Your task to perform on an android device: install app "Facebook Messenger" Image 0: 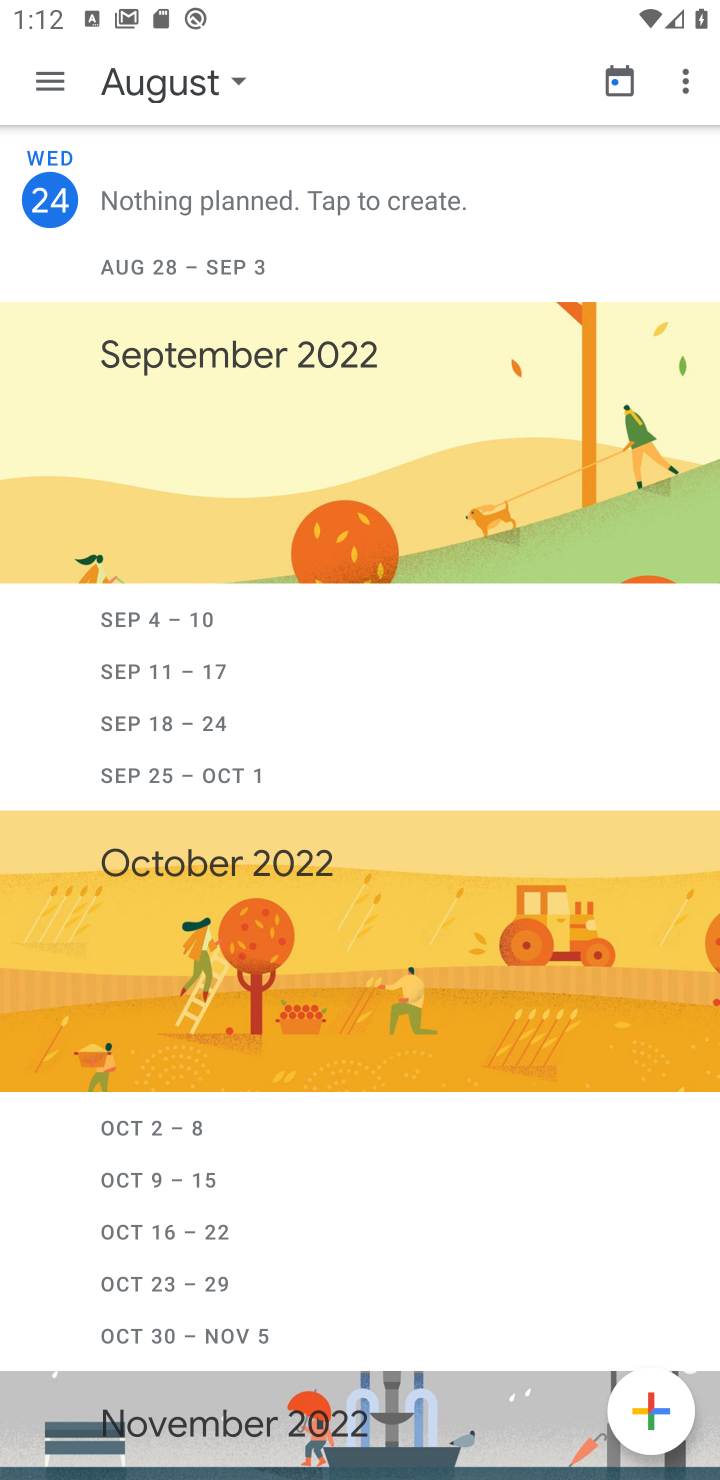
Step 0: press home button
Your task to perform on an android device: install app "Facebook Messenger" Image 1: 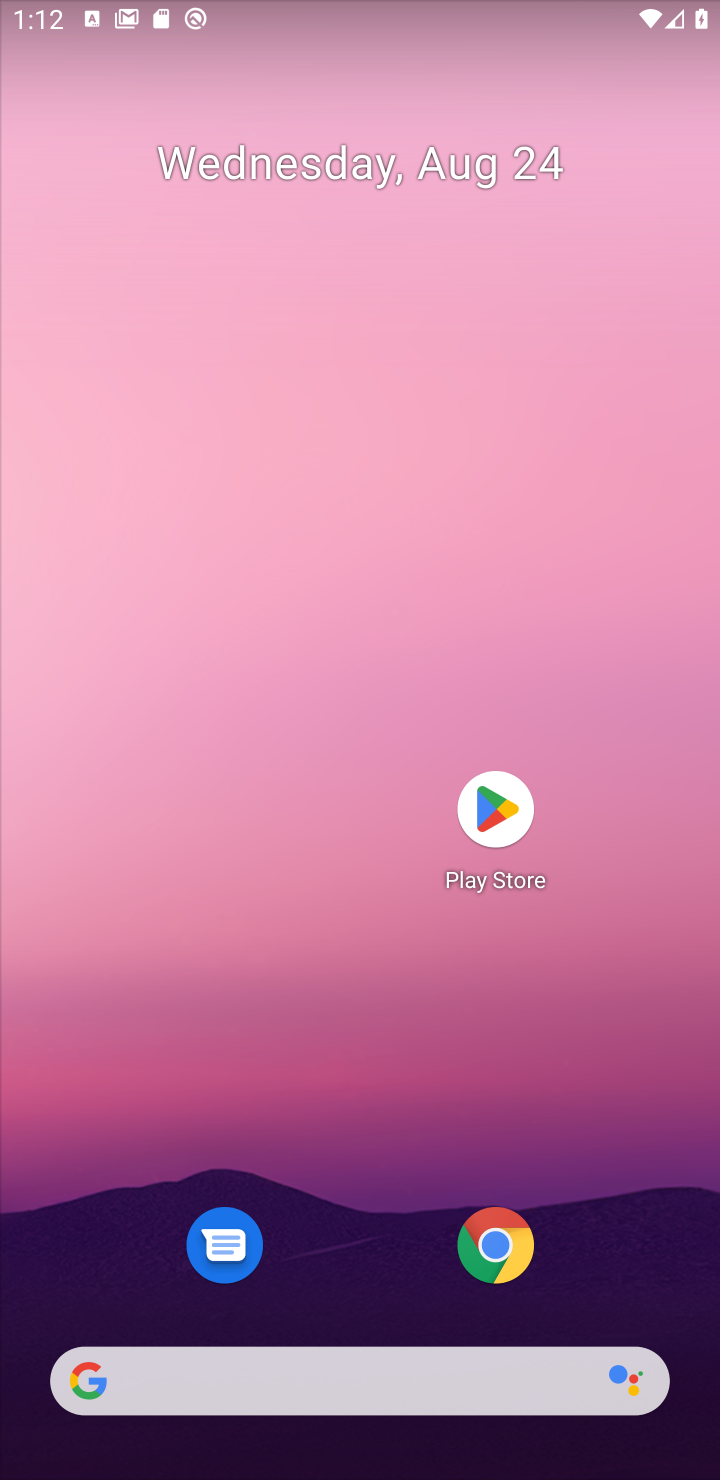
Step 1: click (499, 793)
Your task to perform on an android device: install app "Facebook Messenger" Image 2: 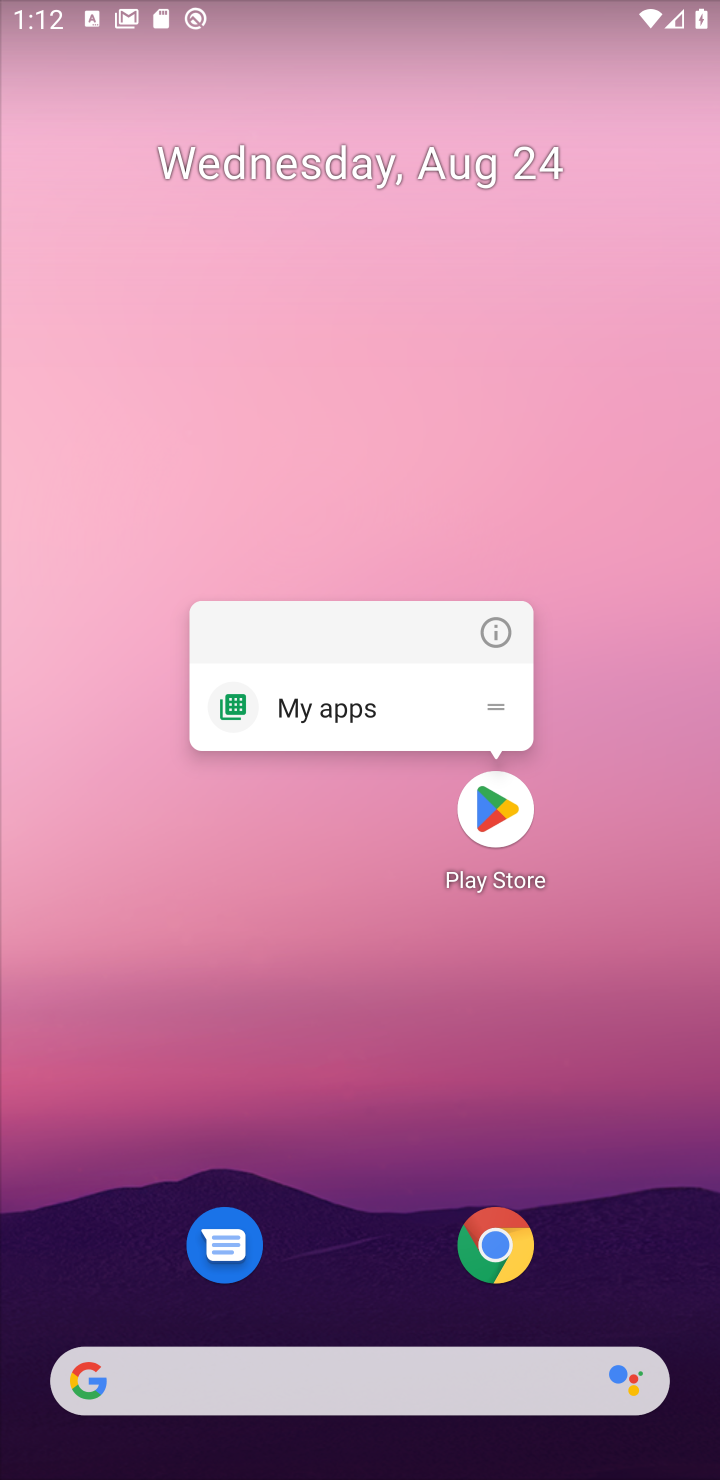
Step 2: click (499, 780)
Your task to perform on an android device: install app "Facebook Messenger" Image 3: 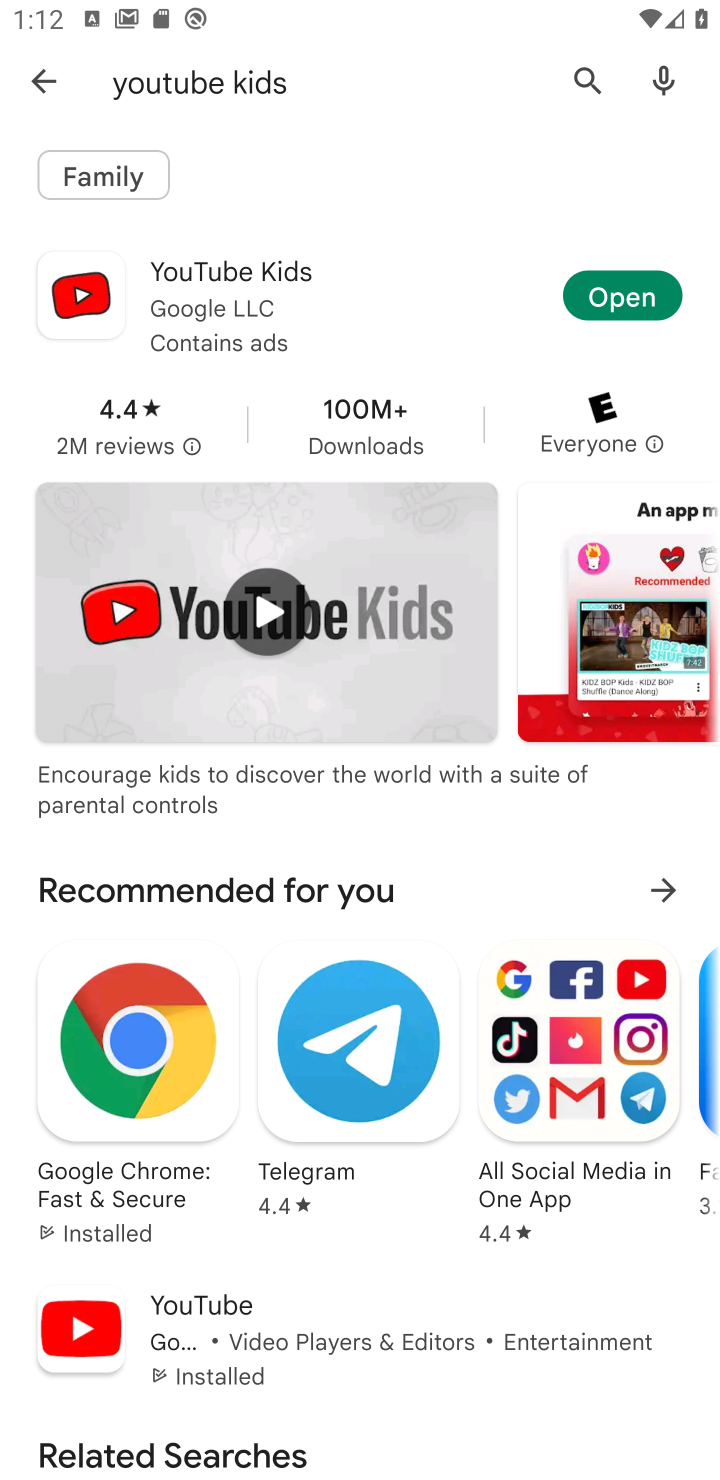
Step 3: click (576, 47)
Your task to perform on an android device: install app "Facebook Messenger" Image 4: 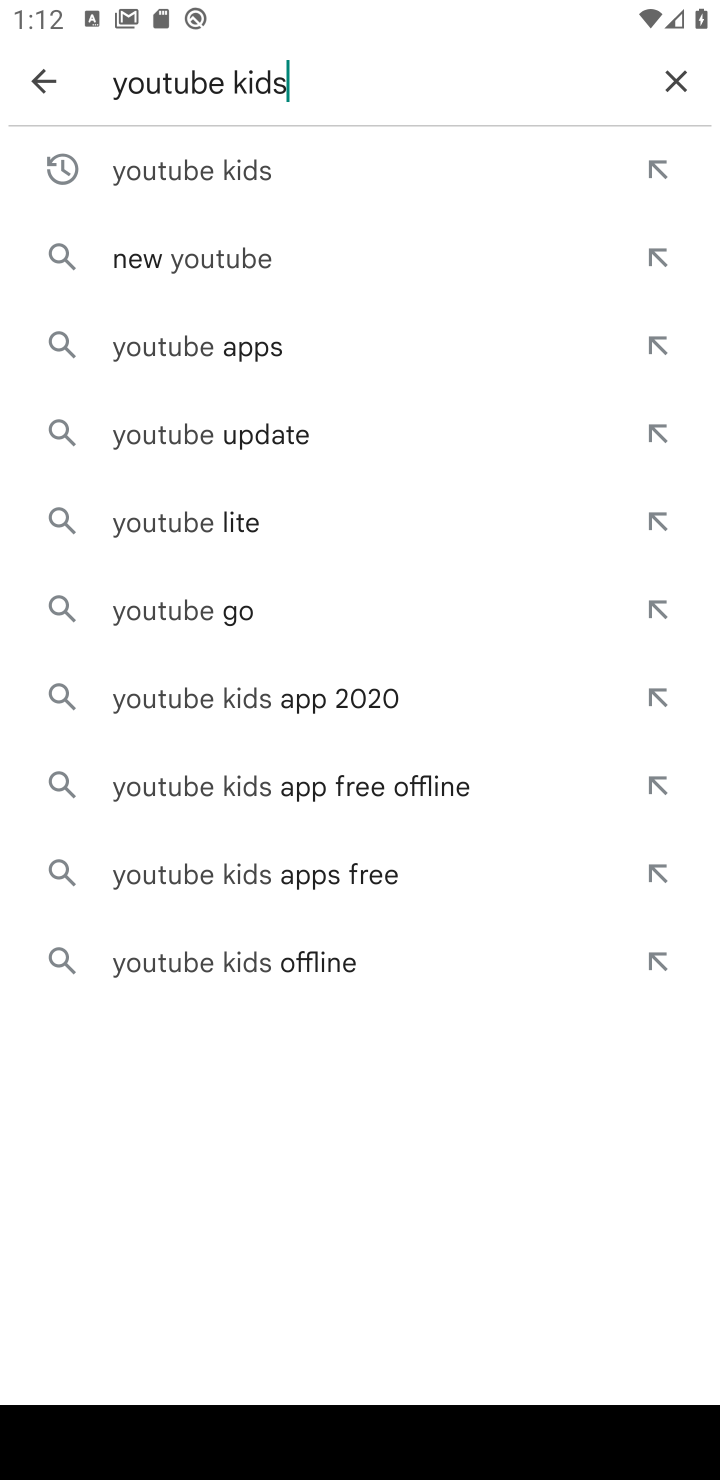
Step 4: click (714, 43)
Your task to perform on an android device: install app "Facebook Messenger" Image 5: 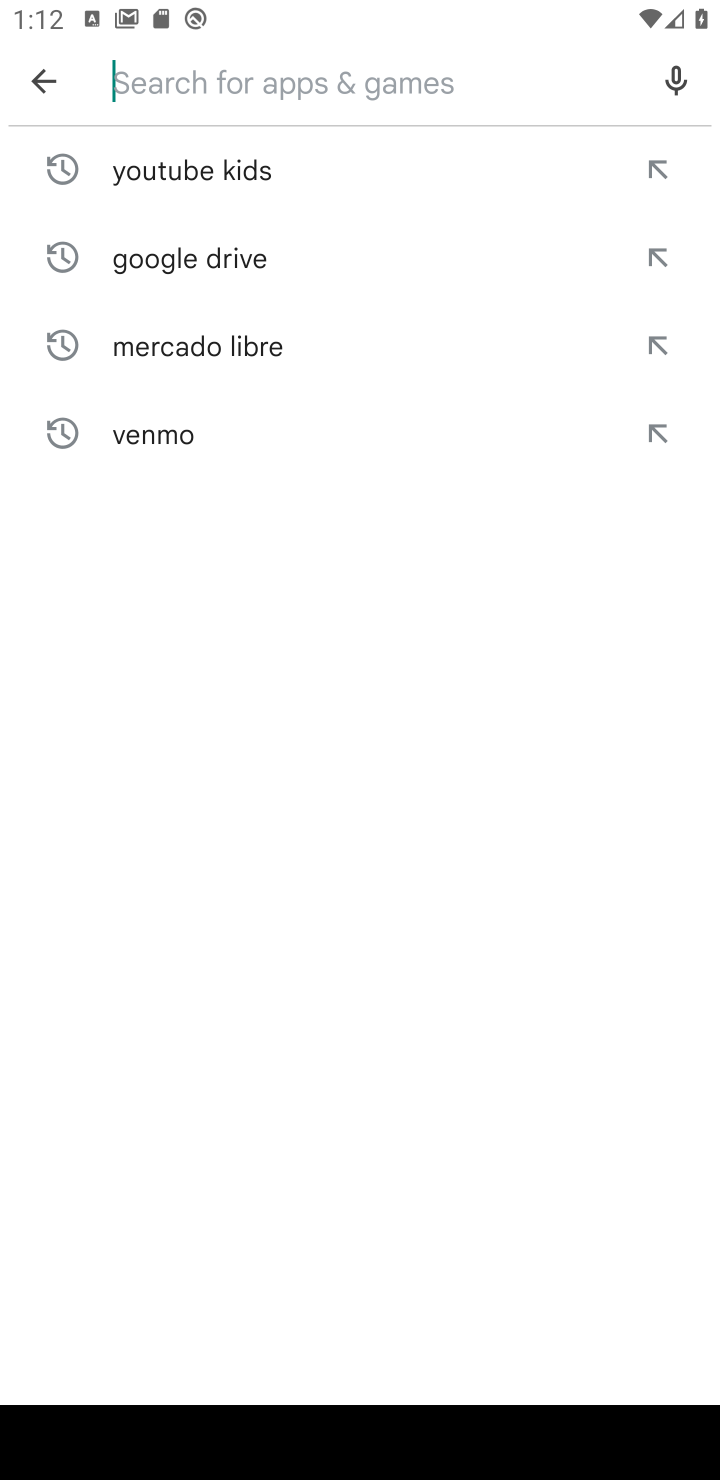
Step 5: type "Facebook Messenger"
Your task to perform on an android device: install app "Facebook Messenger" Image 6: 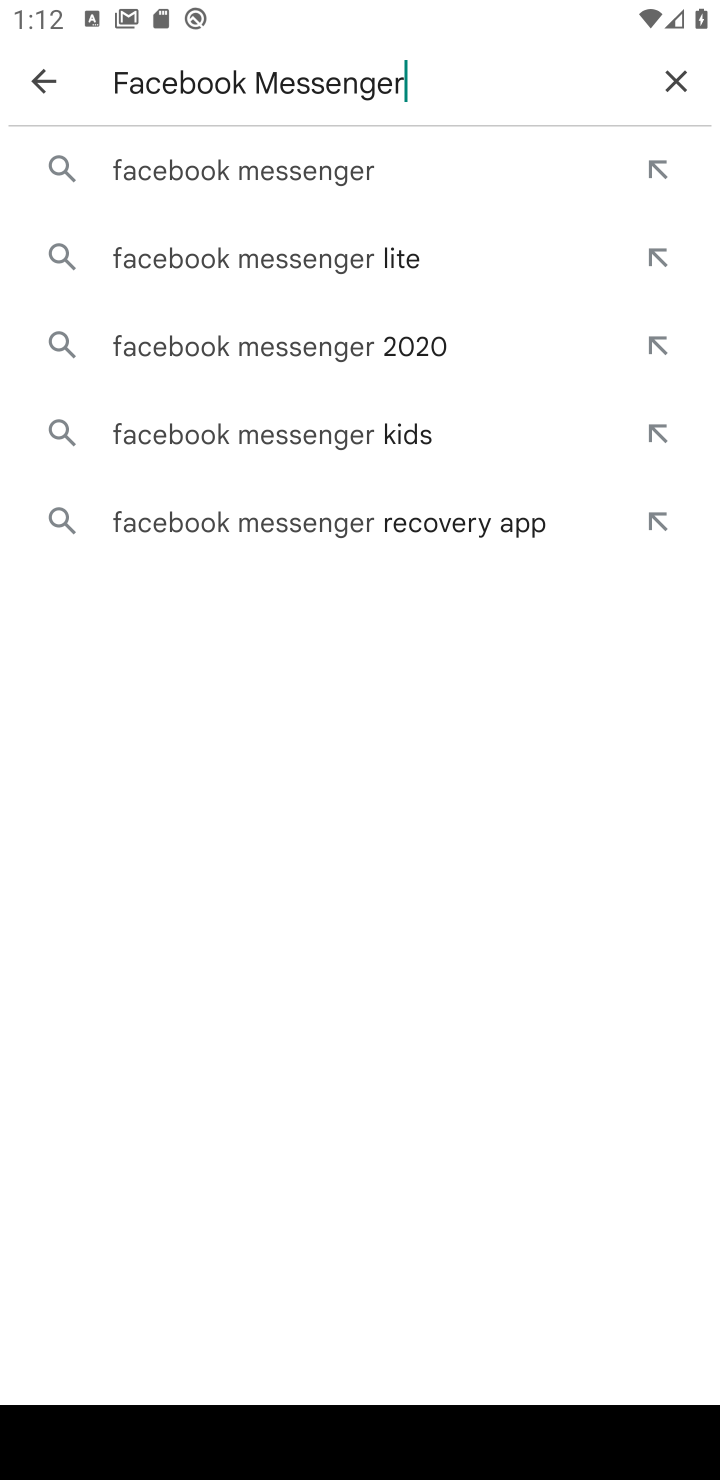
Step 6: click (369, 161)
Your task to perform on an android device: install app "Facebook Messenger" Image 7: 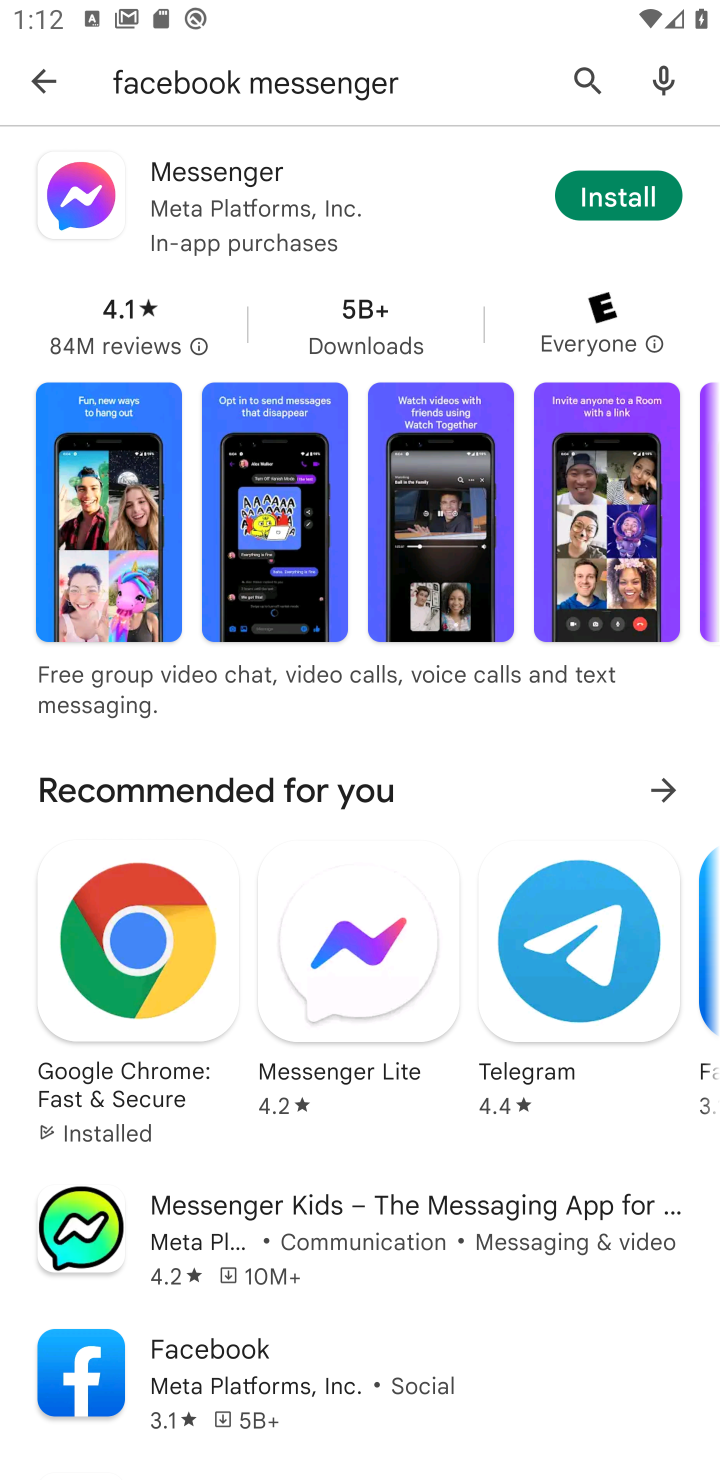
Step 7: click (649, 196)
Your task to perform on an android device: install app "Facebook Messenger" Image 8: 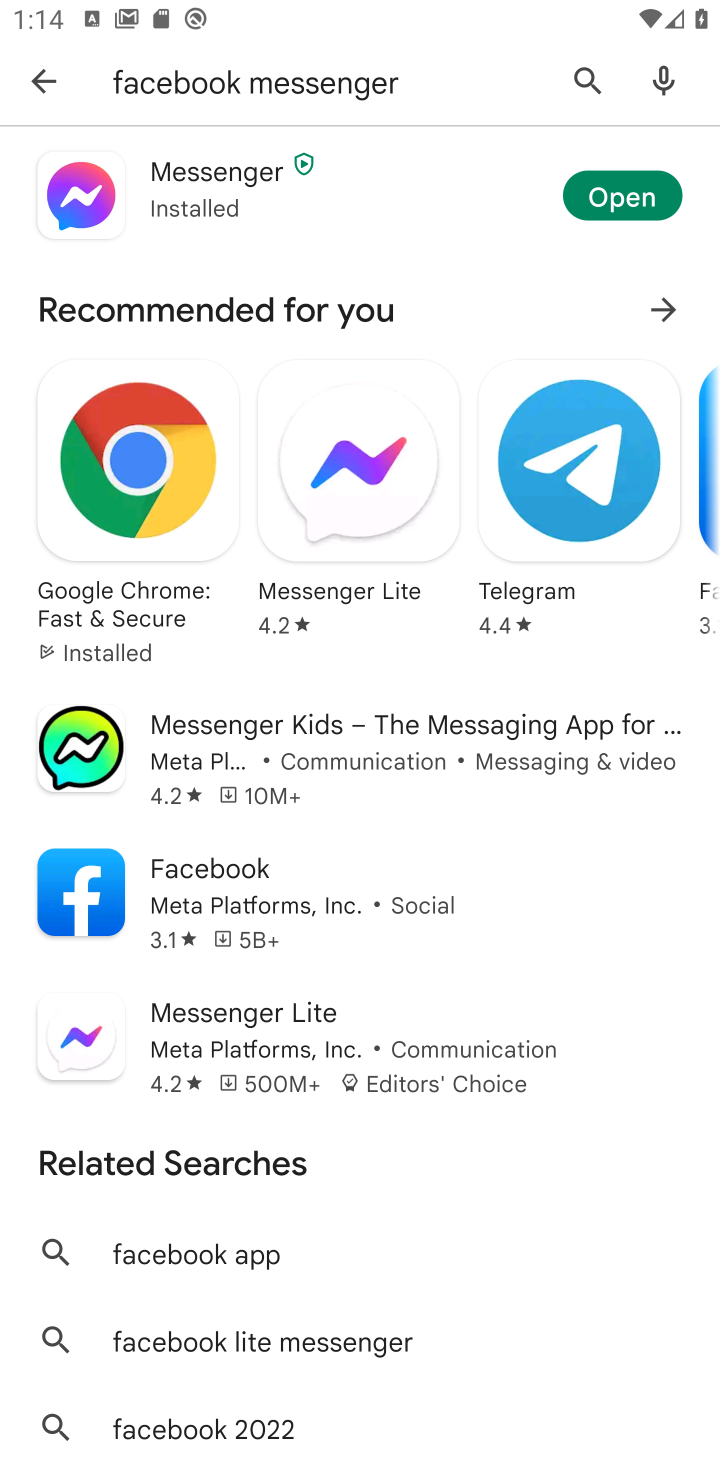
Step 8: task complete